Your task to perform on an android device: Open Android settings Image 0: 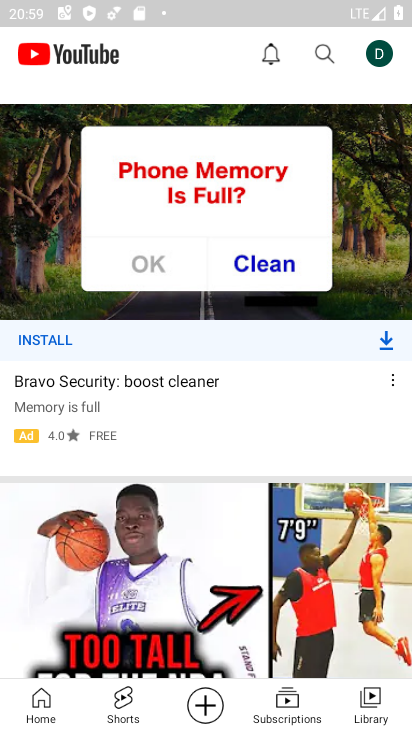
Step 0: press home button
Your task to perform on an android device: Open Android settings Image 1: 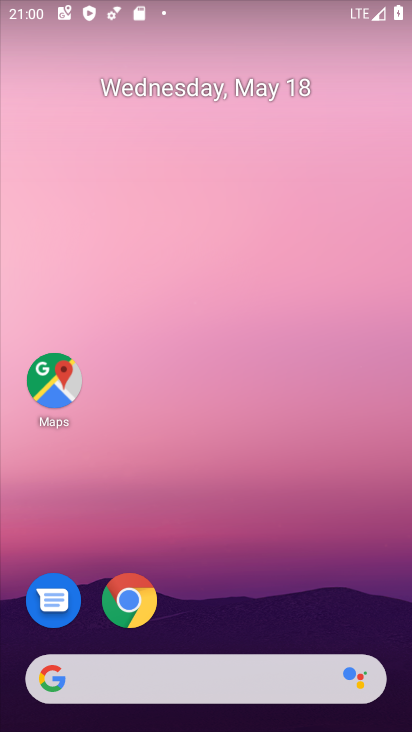
Step 1: drag from (208, 589) to (292, 61)
Your task to perform on an android device: Open Android settings Image 2: 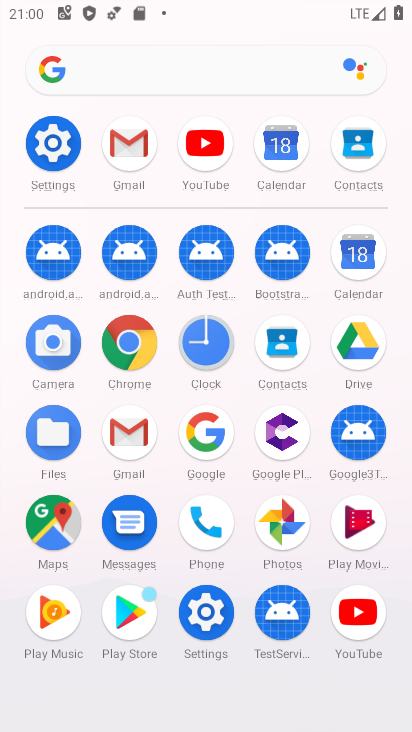
Step 2: click (68, 139)
Your task to perform on an android device: Open Android settings Image 3: 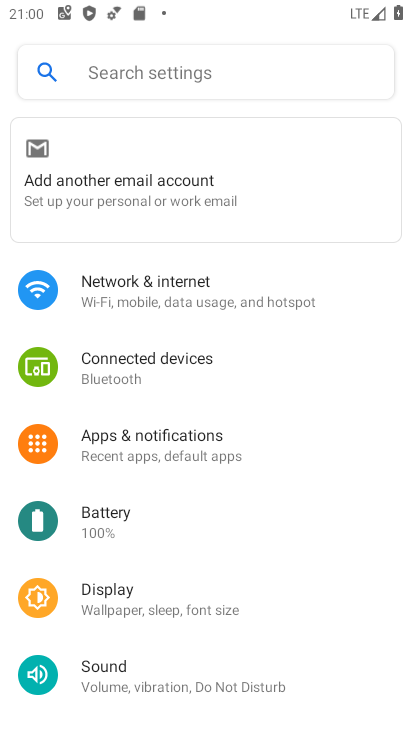
Step 3: drag from (140, 601) to (201, 77)
Your task to perform on an android device: Open Android settings Image 4: 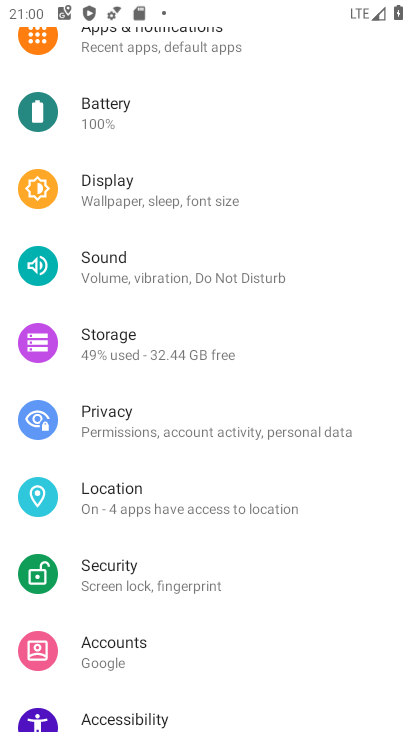
Step 4: drag from (188, 656) to (281, 65)
Your task to perform on an android device: Open Android settings Image 5: 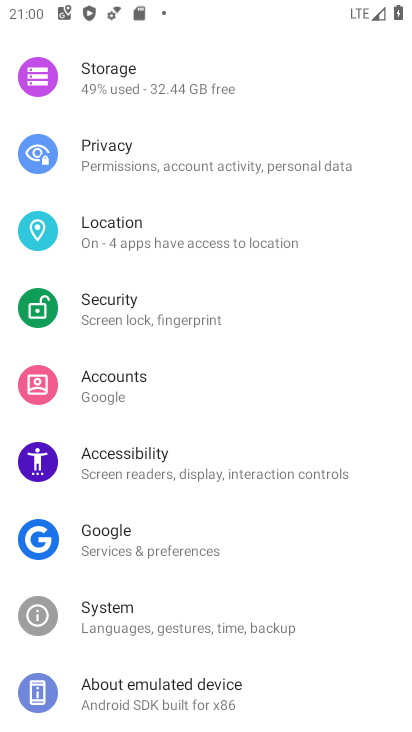
Step 5: drag from (200, 631) to (293, 160)
Your task to perform on an android device: Open Android settings Image 6: 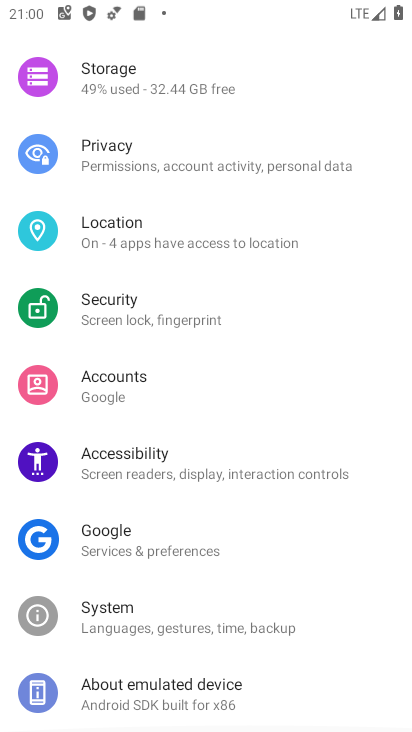
Step 6: click (152, 684)
Your task to perform on an android device: Open Android settings Image 7: 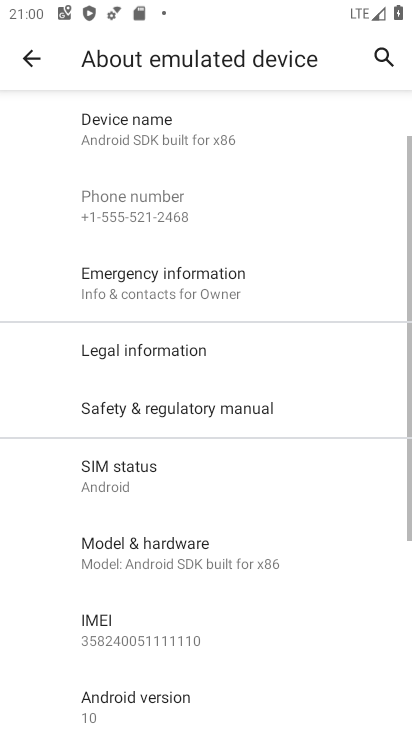
Step 7: click (150, 702)
Your task to perform on an android device: Open Android settings Image 8: 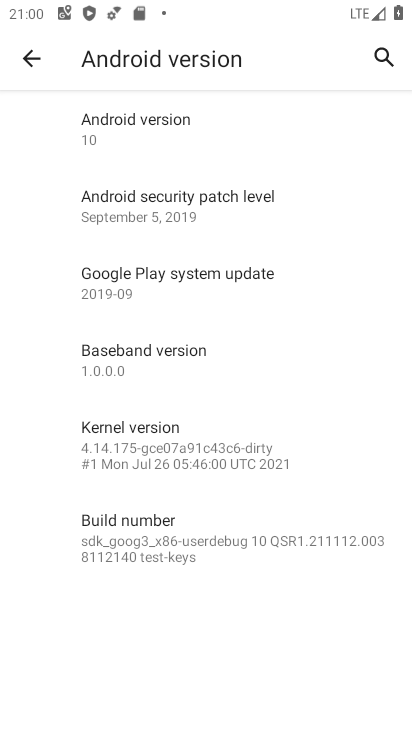
Step 8: task complete